Your task to perform on an android device: search for starred emails in the gmail app Image 0: 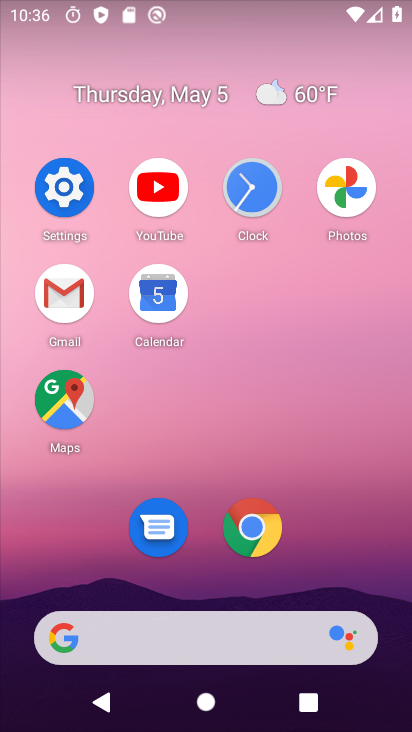
Step 0: click (69, 285)
Your task to perform on an android device: search for starred emails in the gmail app Image 1: 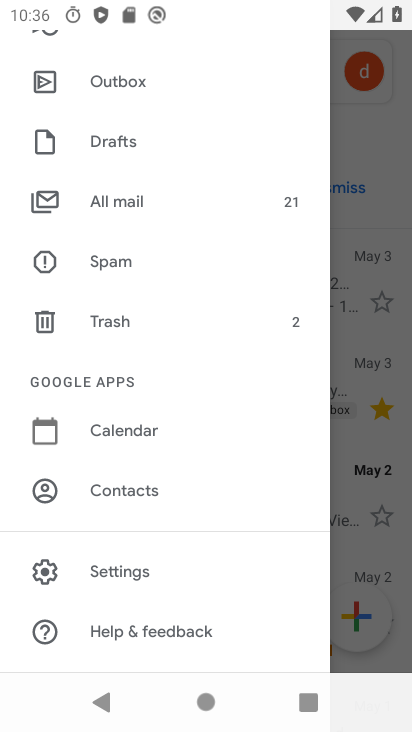
Step 1: drag from (327, 335) to (57, 324)
Your task to perform on an android device: search for starred emails in the gmail app Image 2: 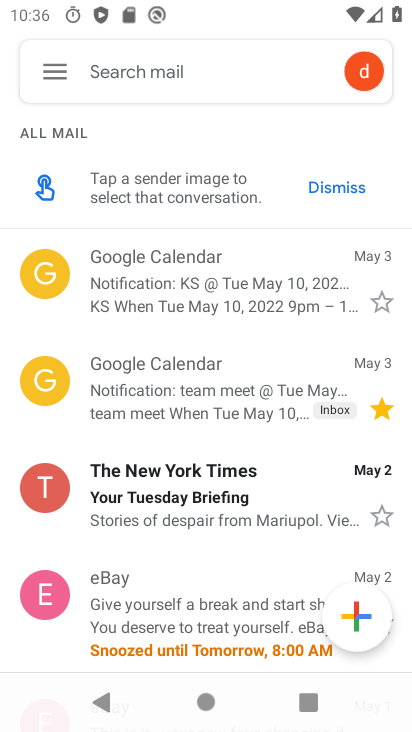
Step 2: click (65, 70)
Your task to perform on an android device: search for starred emails in the gmail app Image 3: 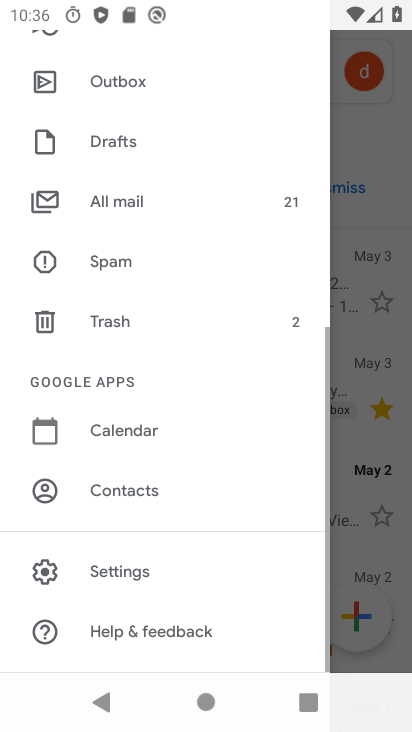
Step 3: drag from (146, 225) to (159, 712)
Your task to perform on an android device: search for starred emails in the gmail app Image 4: 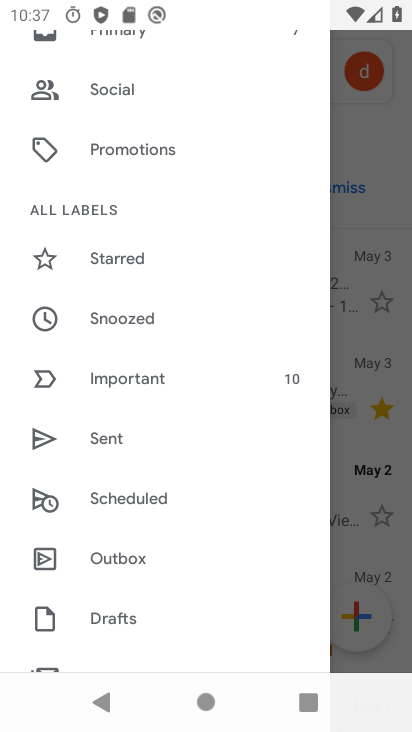
Step 4: click (125, 284)
Your task to perform on an android device: search for starred emails in the gmail app Image 5: 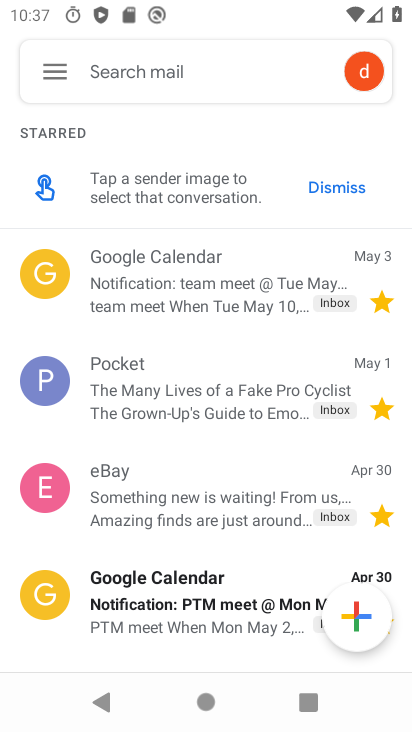
Step 5: task complete